Your task to perform on an android device: Go to wifi settings Image 0: 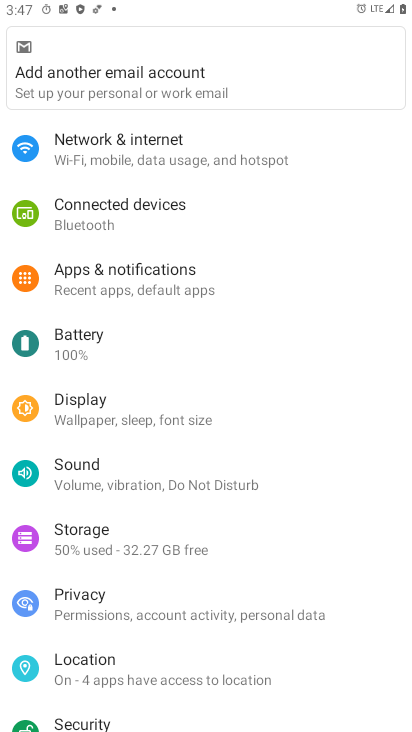
Step 0: press home button
Your task to perform on an android device: Go to wifi settings Image 1: 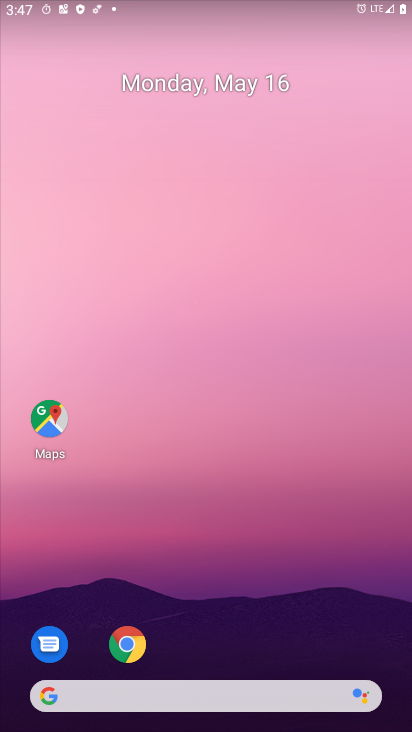
Step 1: drag from (224, 646) to (250, 171)
Your task to perform on an android device: Go to wifi settings Image 2: 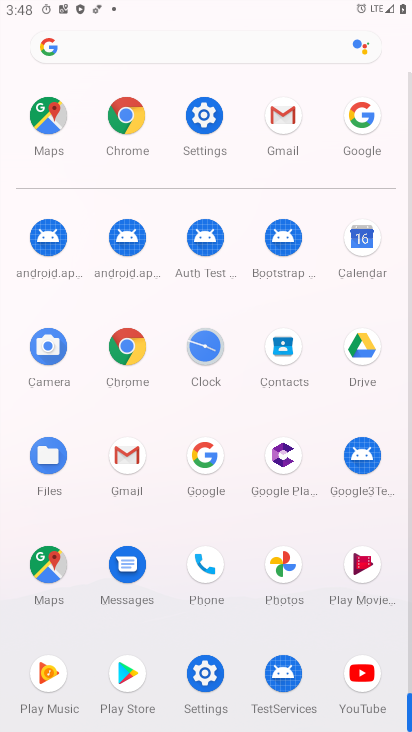
Step 2: click (214, 140)
Your task to perform on an android device: Go to wifi settings Image 3: 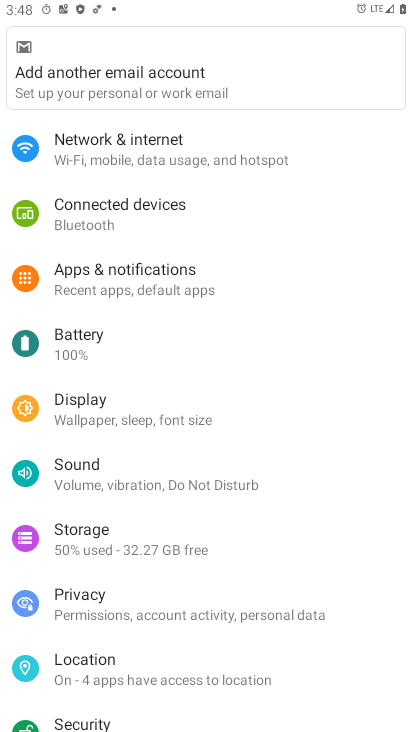
Step 3: drag from (204, 314) to (178, 505)
Your task to perform on an android device: Go to wifi settings Image 4: 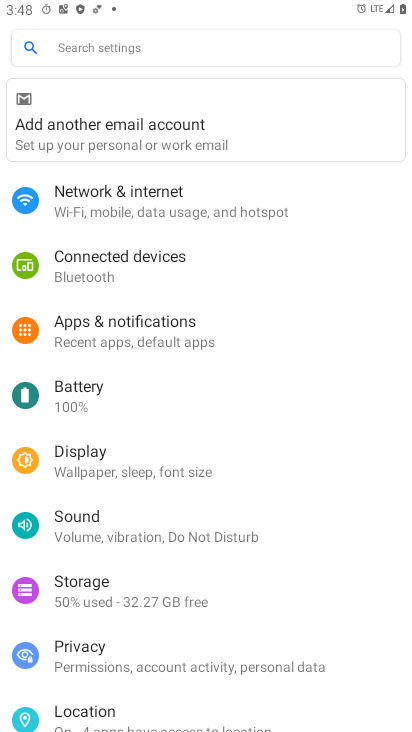
Step 4: click (177, 226)
Your task to perform on an android device: Go to wifi settings Image 5: 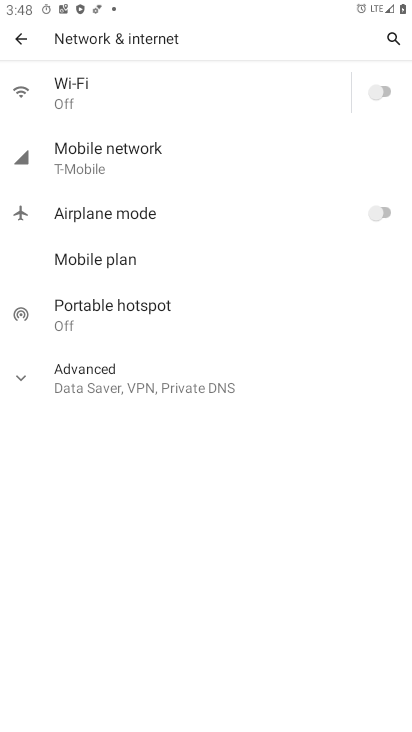
Step 5: click (161, 90)
Your task to perform on an android device: Go to wifi settings Image 6: 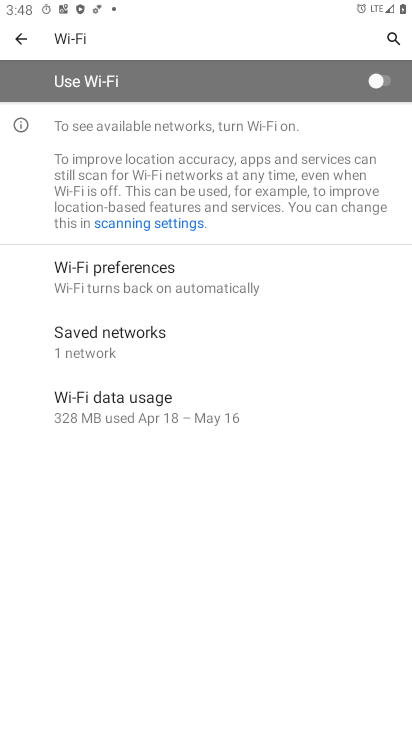
Step 6: task complete